Your task to perform on an android device: turn off airplane mode Image 0: 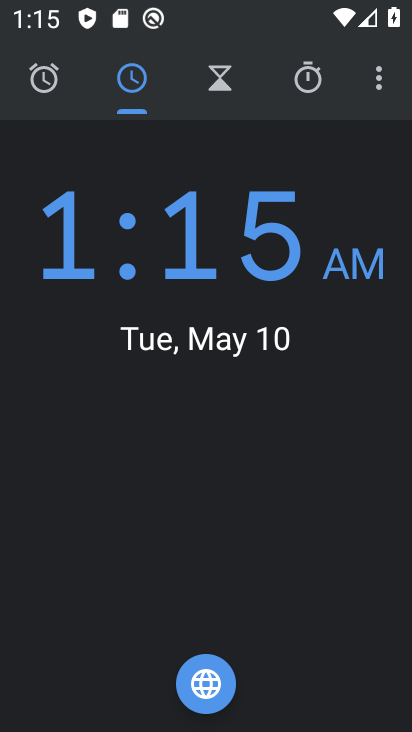
Step 0: press back button
Your task to perform on an android device: turn off airplane mode Image 1: 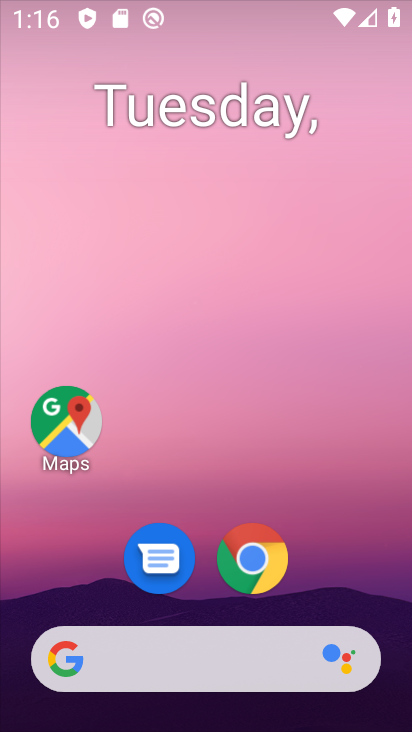
Step 1: task complete